Your task to perform on an android device: install app "Move to iOS" Image 0: 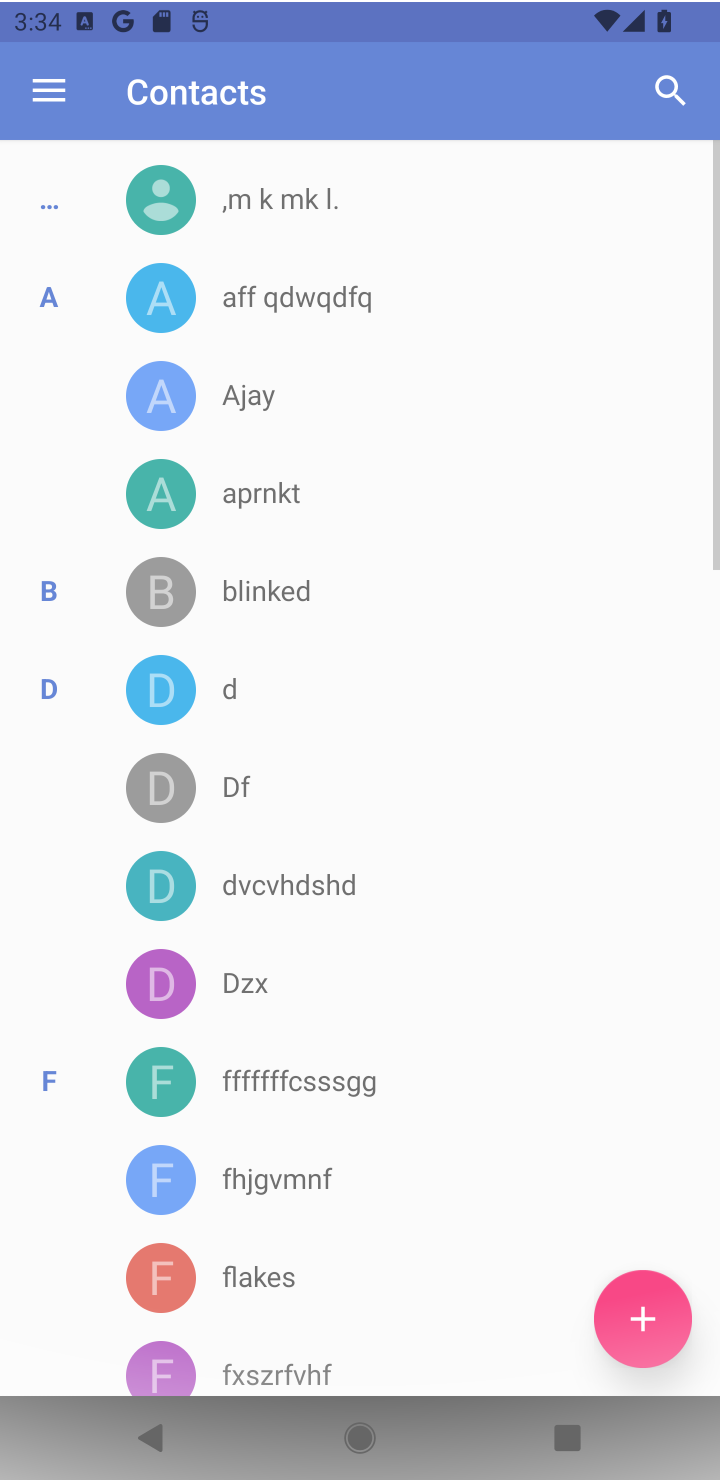
Step 0: press home button
Your task to perform on an android device: install app "Move to iOS" Image 1: 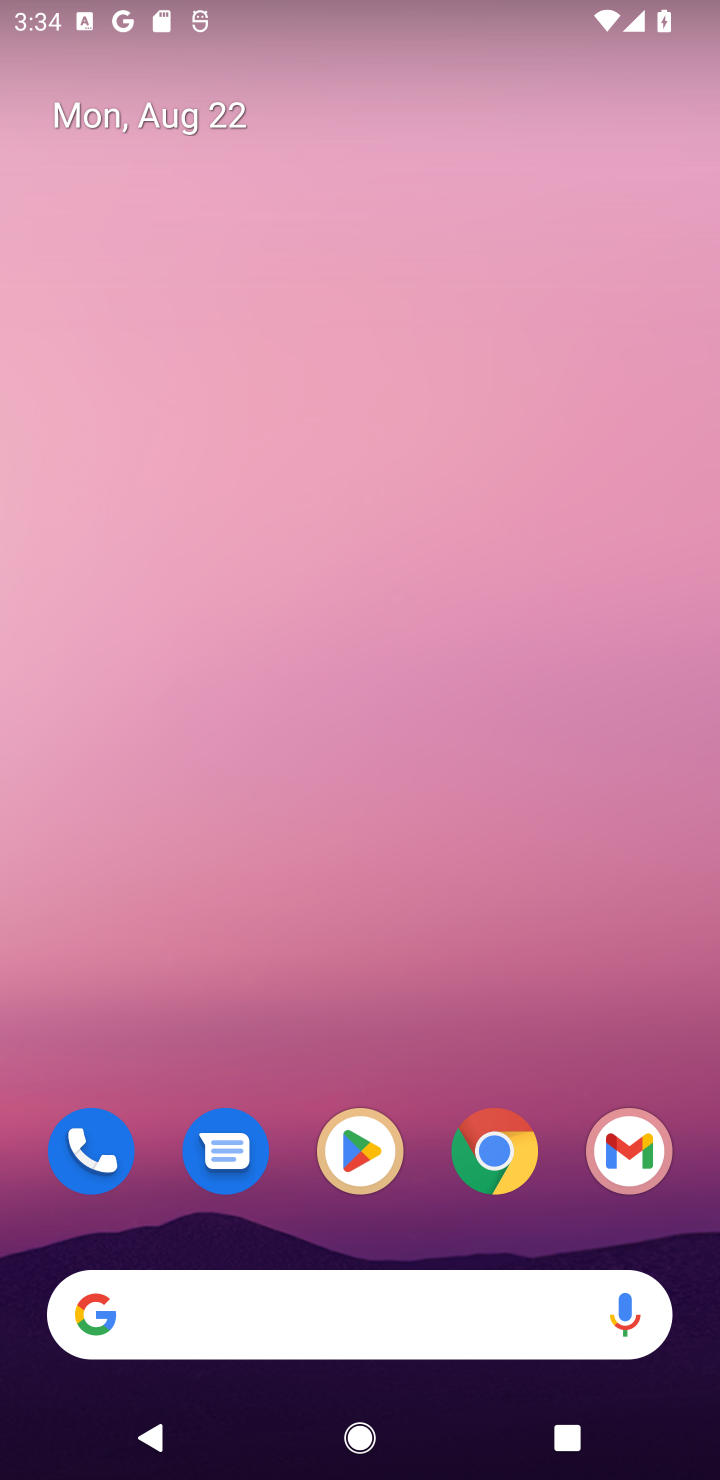
Step 1: click (357, 1147)
Your task to perform on an android device: install app "Move to iOS" Image 2: 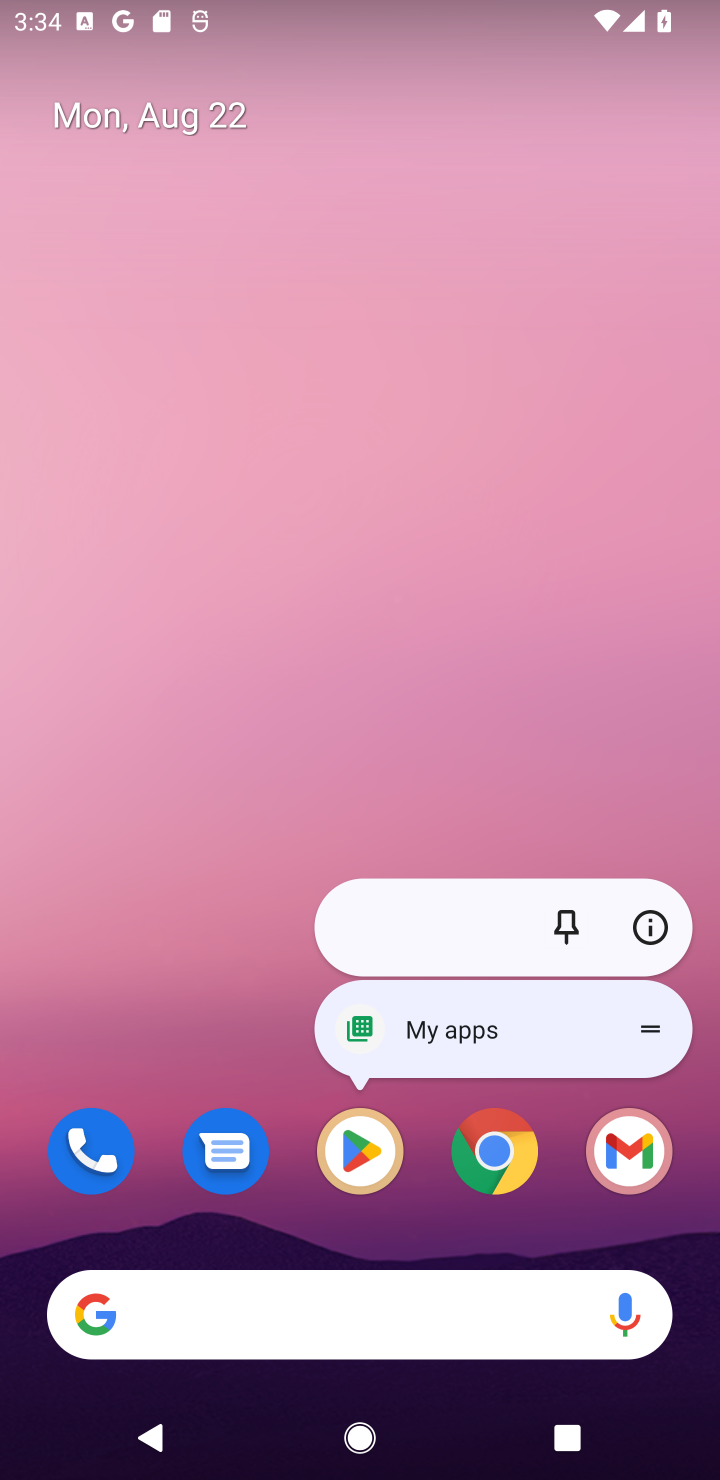
Step 2: click (357, 1153)
Your task to perform on an android device: install app "Move to iOS" Image 3: 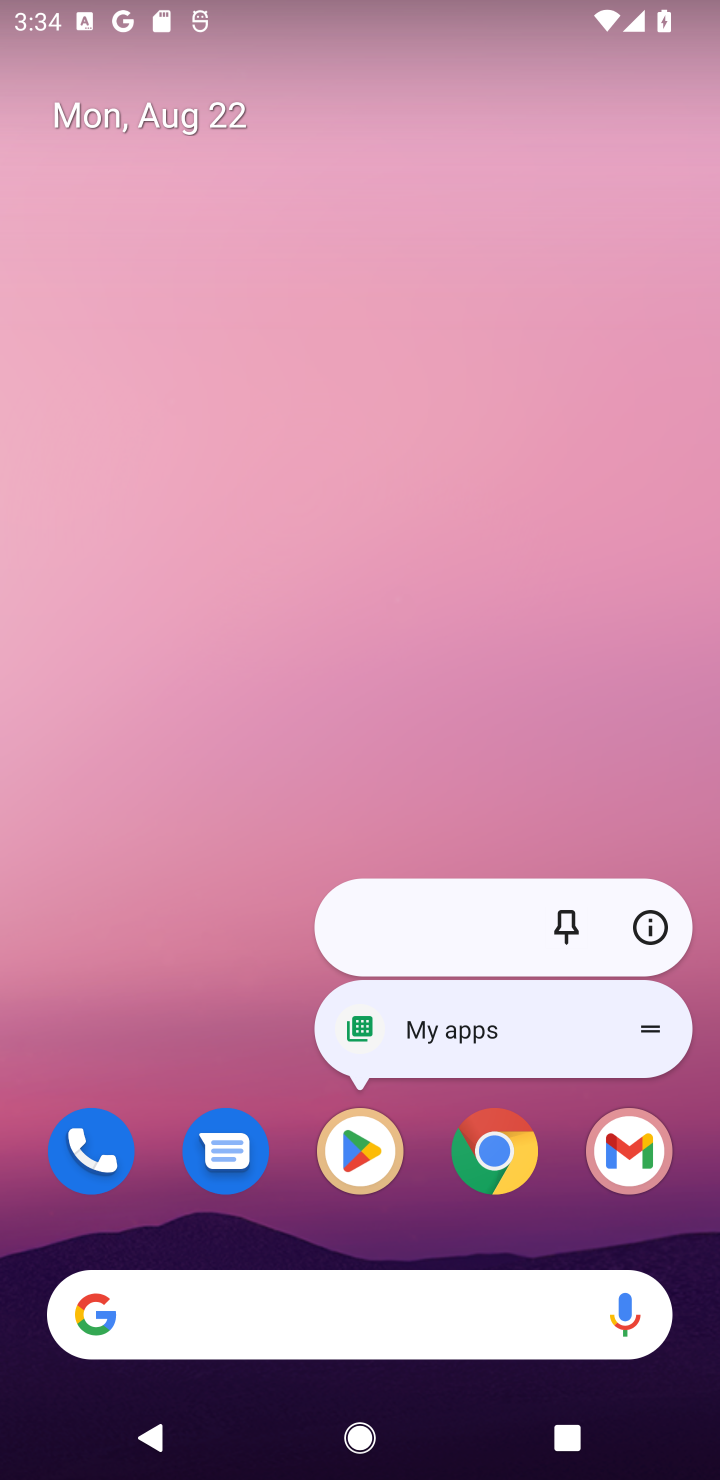
Step 3: click (350, 1164)
Your task to perform on an android device: install app "Move to iOS" Image 4: 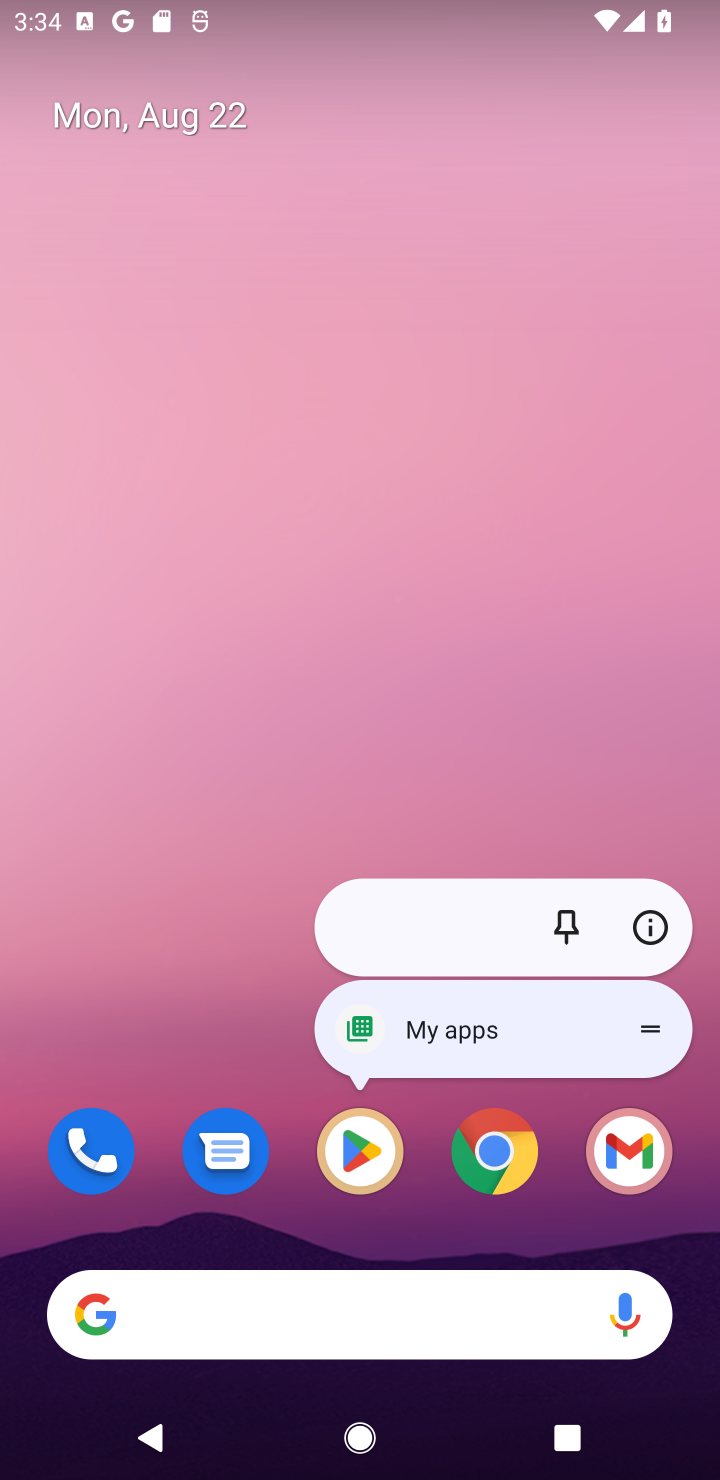
Step 4: click (350, 1170)
Your task to perform on an android device: install app "Move to iOS" Image 5: 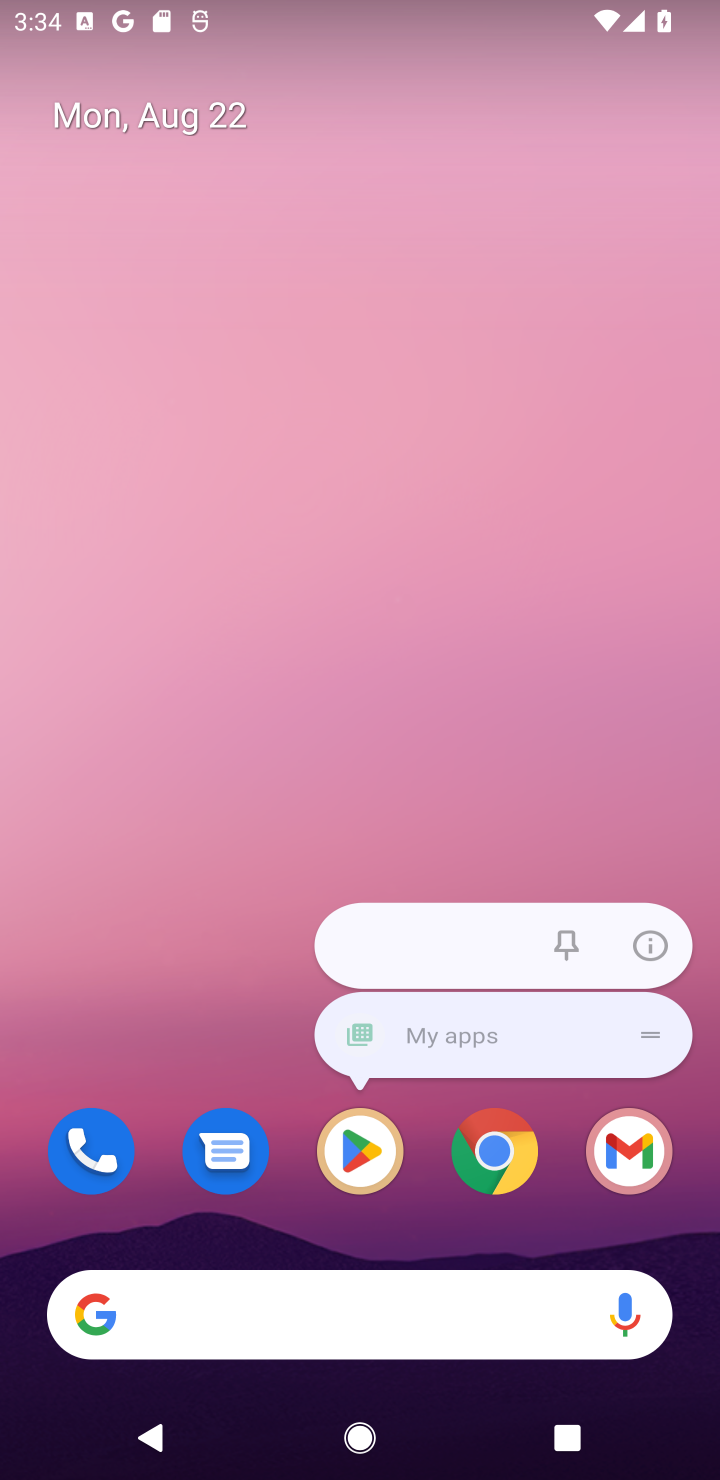
Step 5: click (354, 1150)
Your task to perform on an android device: install app "Move to iOS" Image 6: 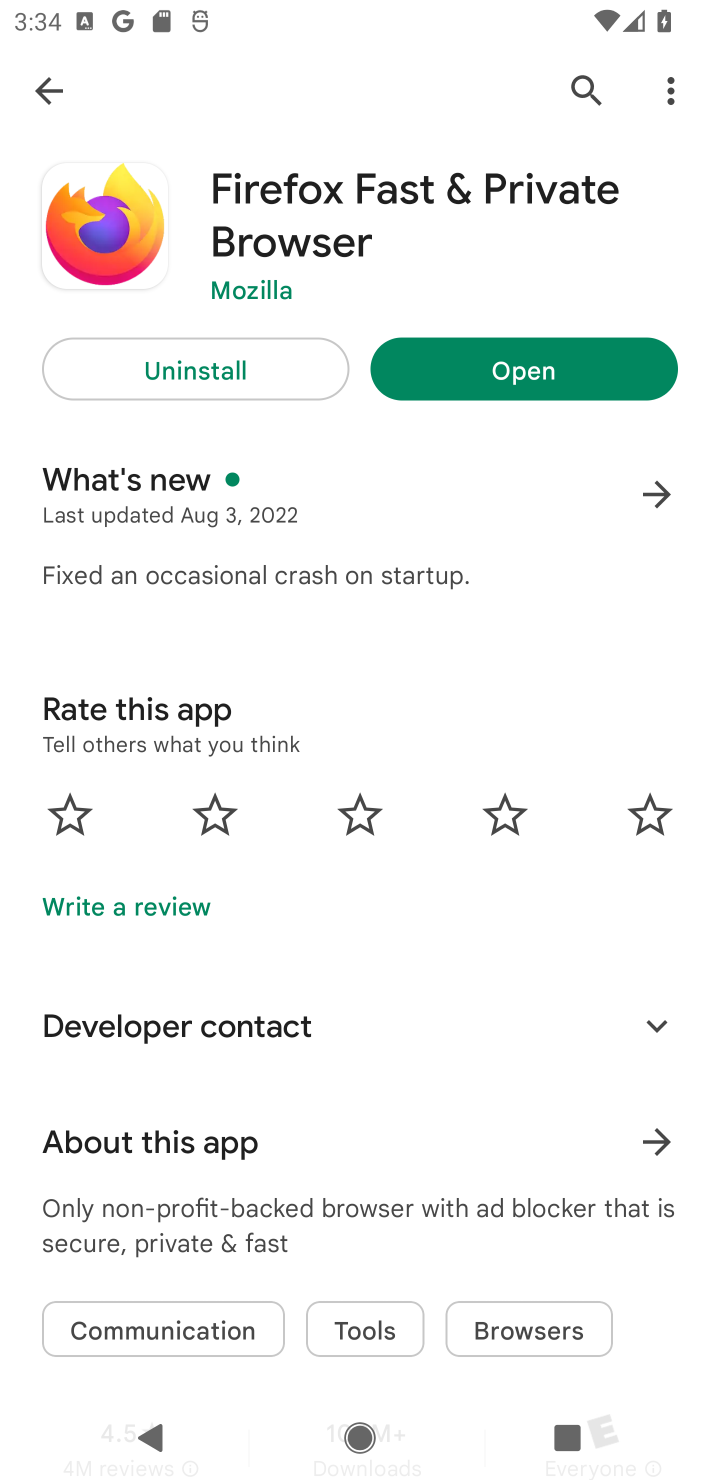
Step 6: click (580, 78)
Your task to perform on an android device: install app "Move to iOS" Image 7: 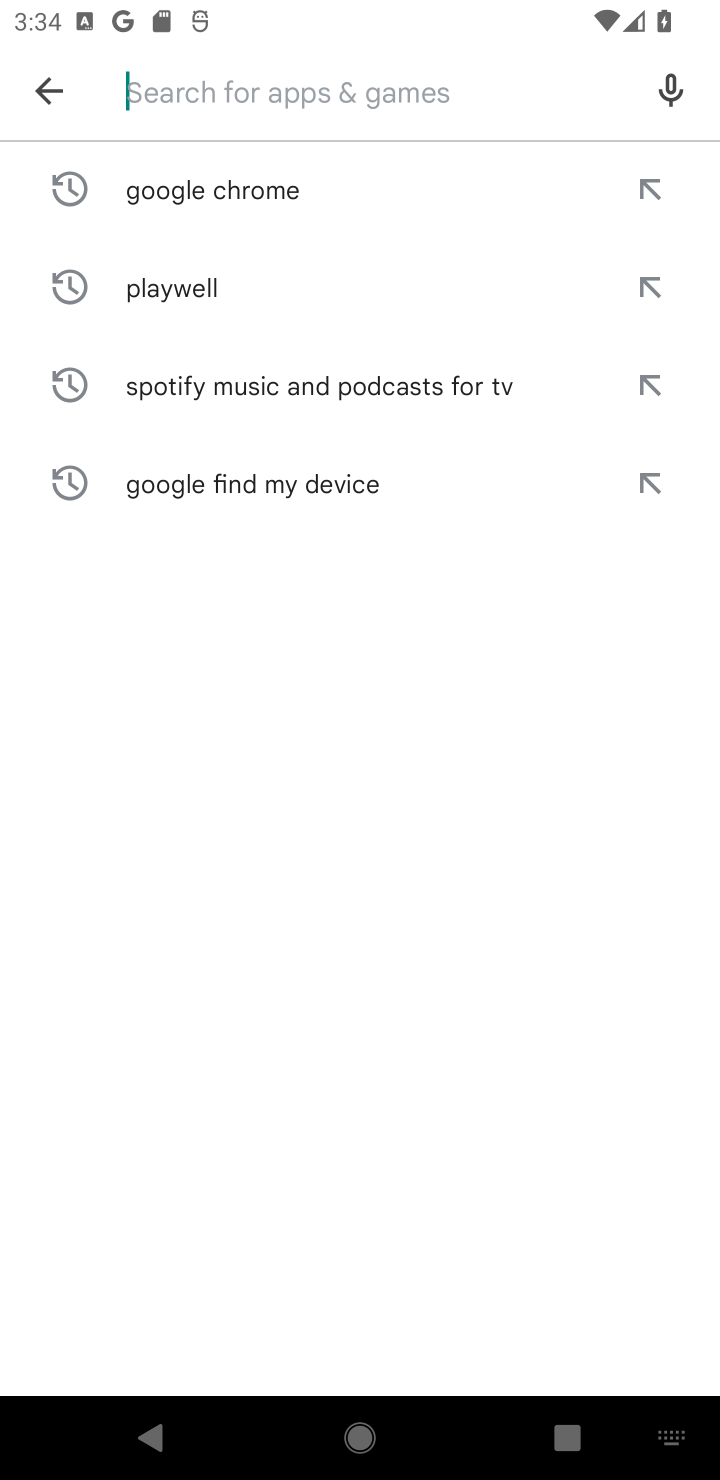
Step 7: type "Move to iOS"
Your task to perform on an android device: install app "Move to iOS" Image 8: 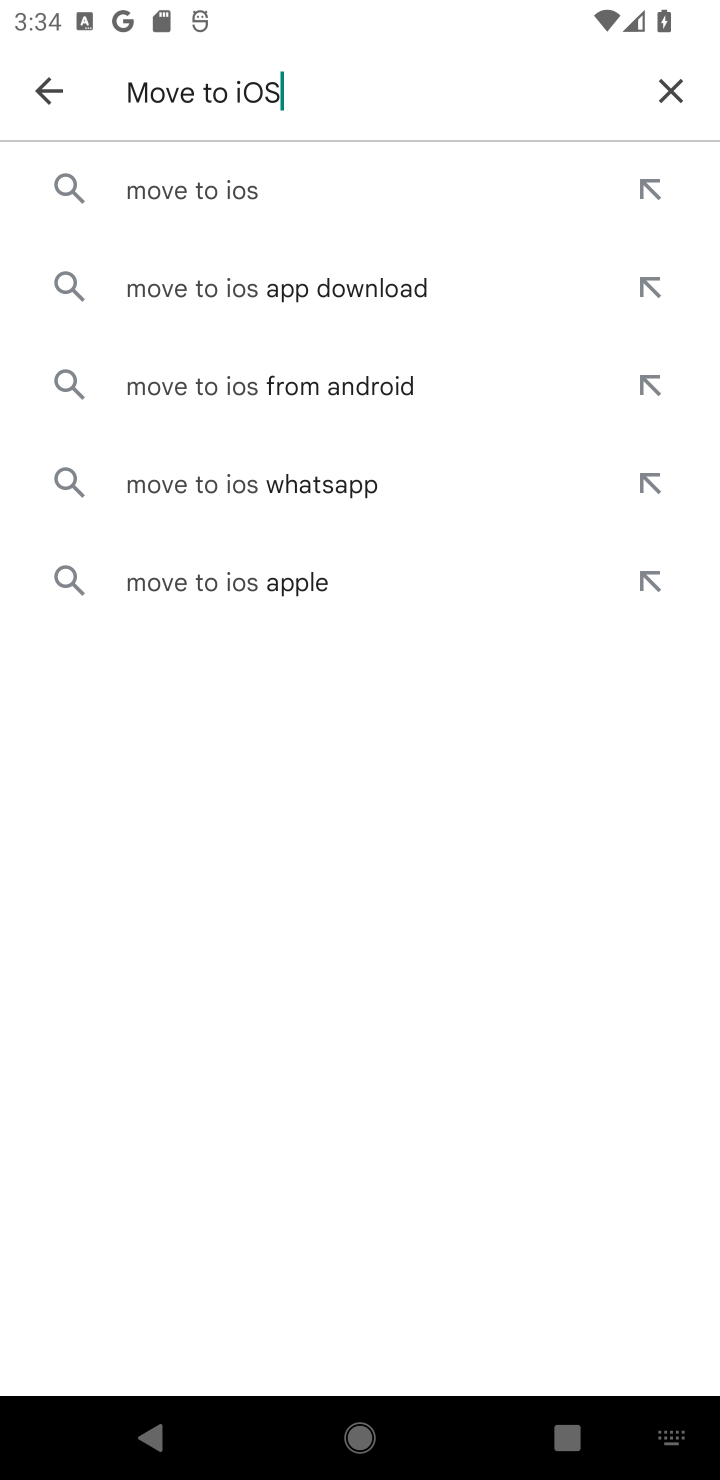
Step 8: click (241, 193)
Your task to perform on an android device: install app "Move to iOS" Image 9: 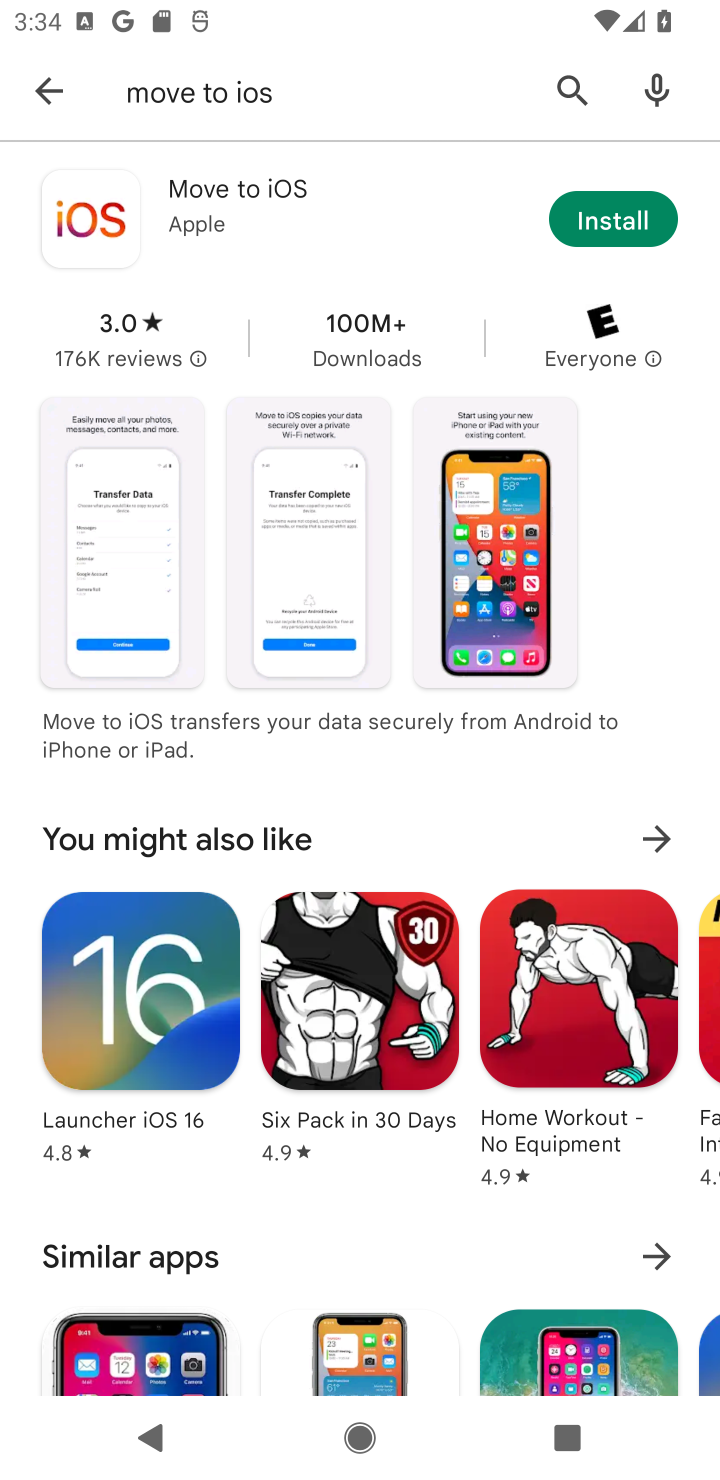
Step 9: click (592, 225)
Your task to perform on an android device: install app "Move to iOS" Image 10: 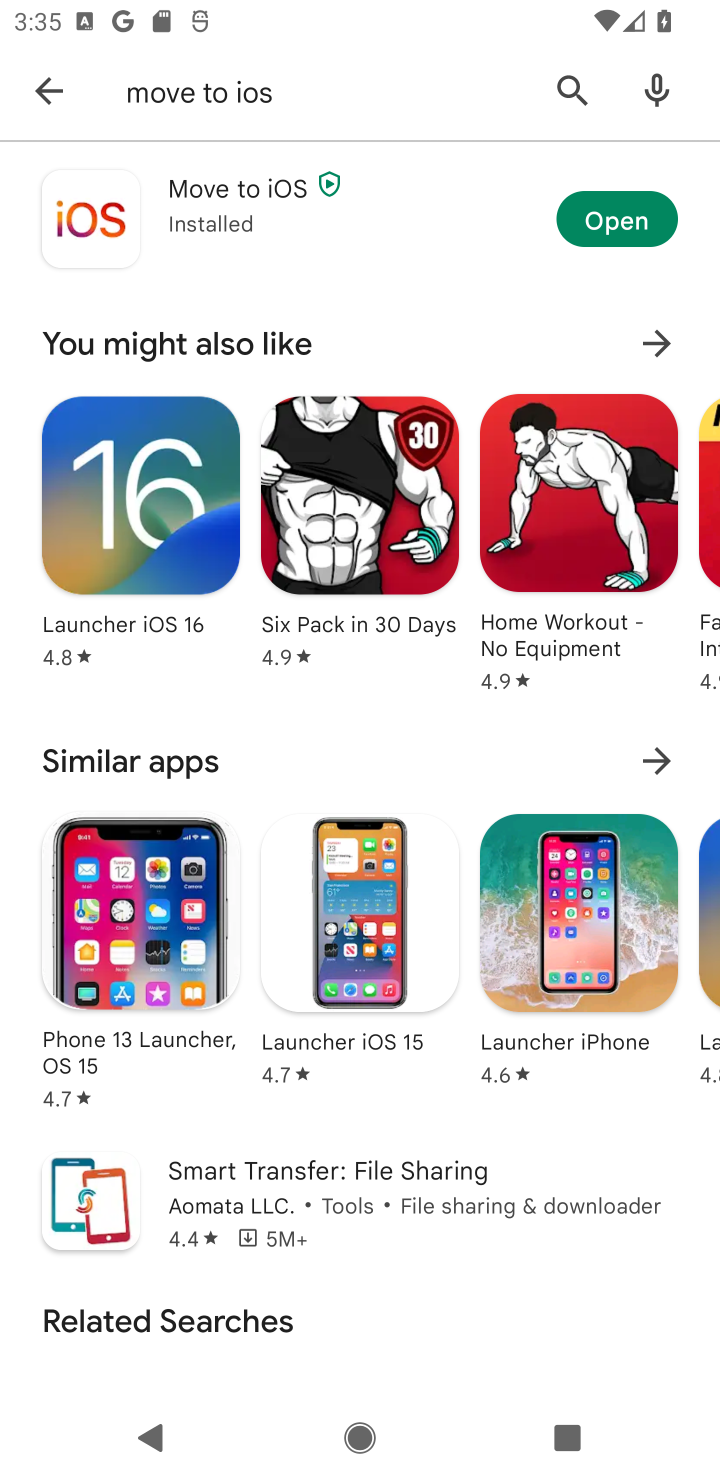
Step 10: task complete